Your task to perform on an android device: toggle improve location accuracy Image 0: 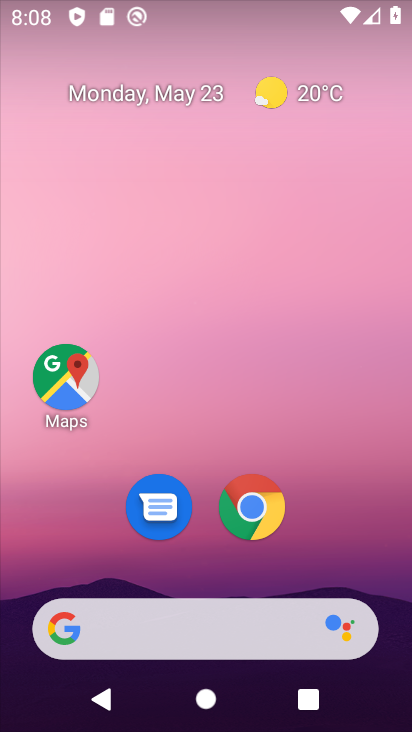
Step 0: drag from (371, 590) to (376, 2)
Your task to perform on an android device: toggle improve location accuracy Image 1: 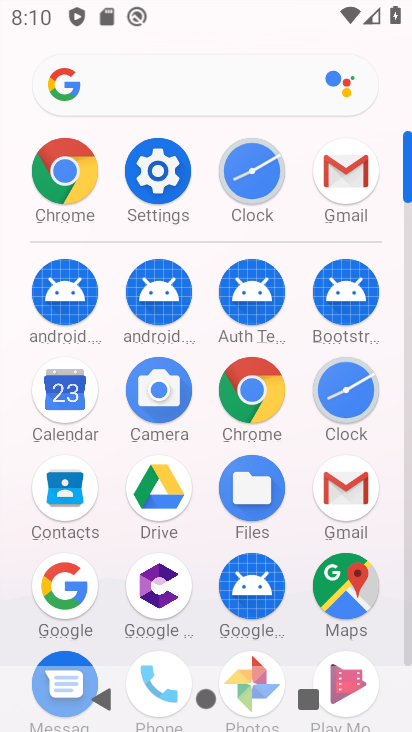
Step 1: click (160, 176)
Your task to perform on an android device: toggle improve location accuracy Image 2: 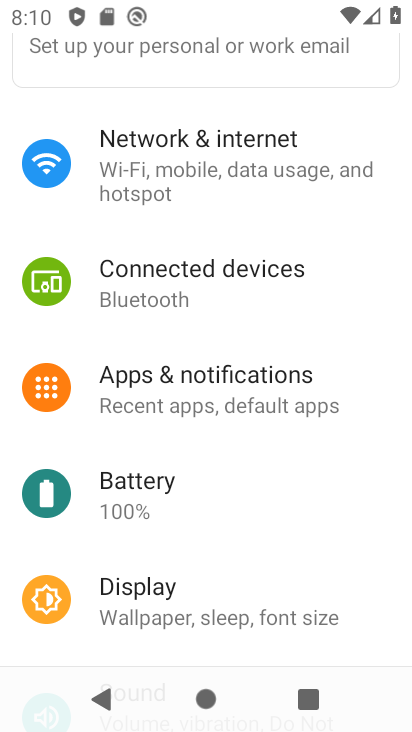
Step 2: drag from (313, 544) to (322, 187)
Your task to perform on an android device: toggle improve location accuracy Image 3: 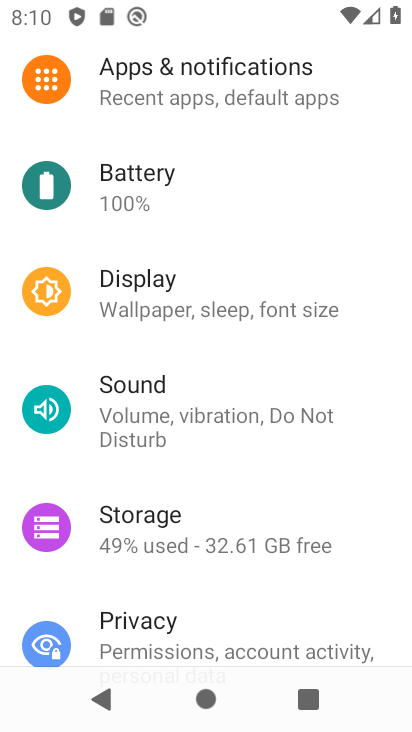
Step 3: drag from (305, 278) to (297, 107)
Your task to perform on an android device: toggle improve location accuracy Image 4: 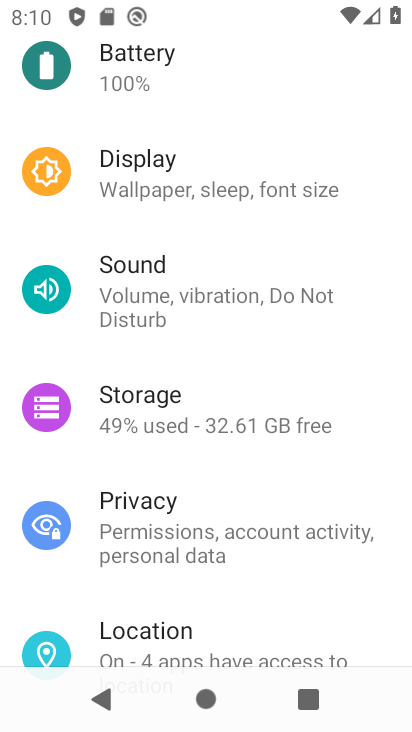
Step 4: click (123, 642)
Your task to perform on an android device: toggle improve location accuracy Image 5: 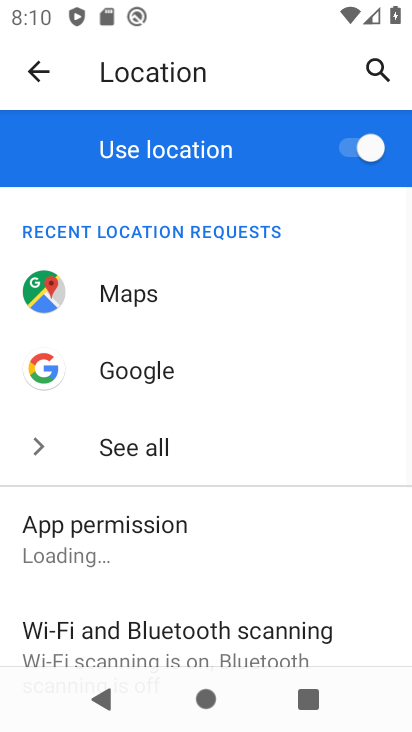
Step 5: drag from (197, 540) to (202, 179)
Your task to perform on an android device: toggle improve location accuracy Image 6: 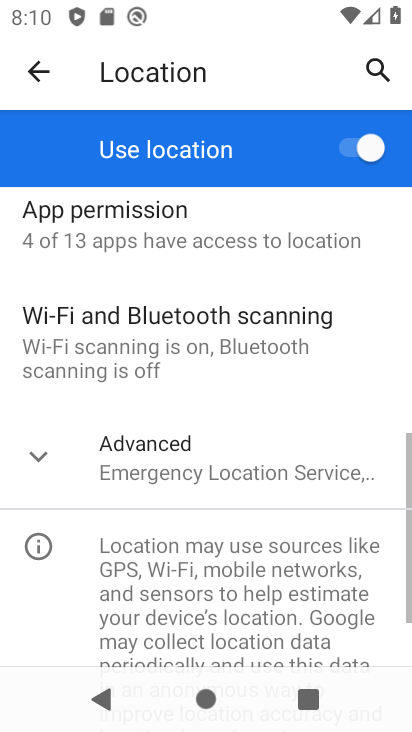
Step 6: click (37, 458)
Your task to perform on an android device: toggle improve location accuracy Image 7: 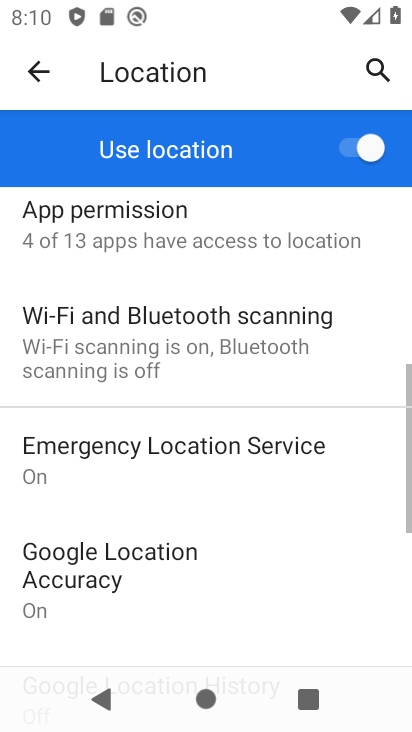
Step 7: drag from (206, 534) to (212, 341)
Your task to perform on an android device: toggle improve location accuracy Image 8: 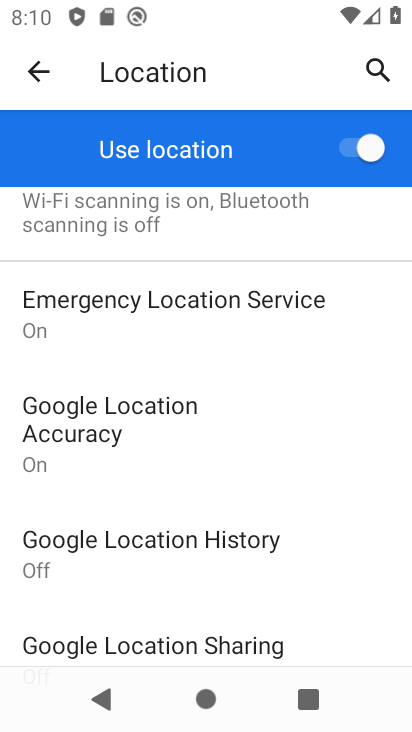
Step 8: click (119, 413)
Your task to perform on an android device: toggle improve location accuracy Image 9: 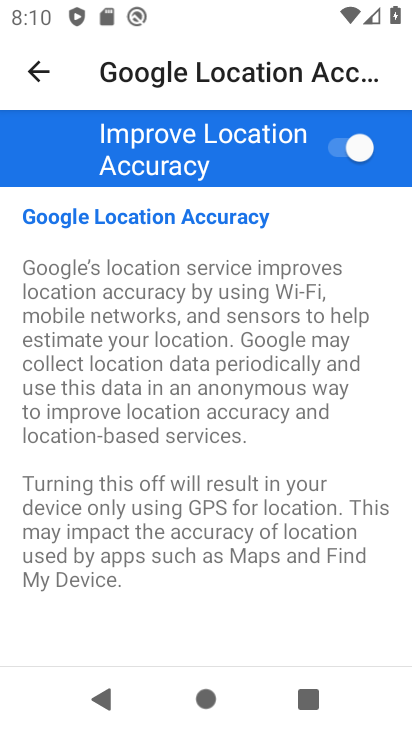
Step 9: click (358, 155)
Your task to perform on an android device: toggle improve location accuracy Image 10: 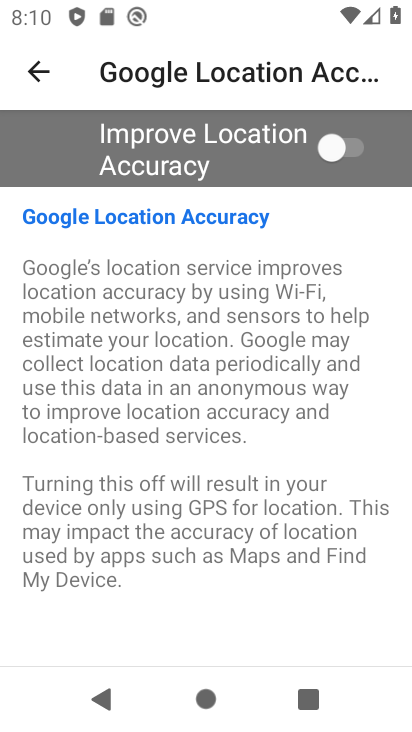
Step 10: task complete